Your task to perform on an android device: check out phone information Image 0: 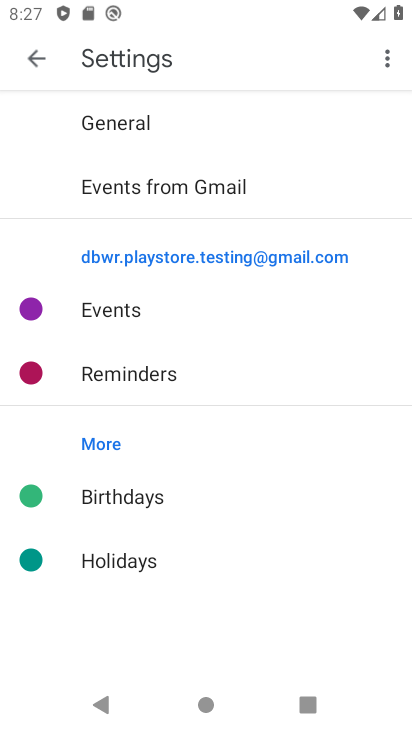
Step 0: click (0, 308)
Your task to perform on an android device: check out phone information Image 1: 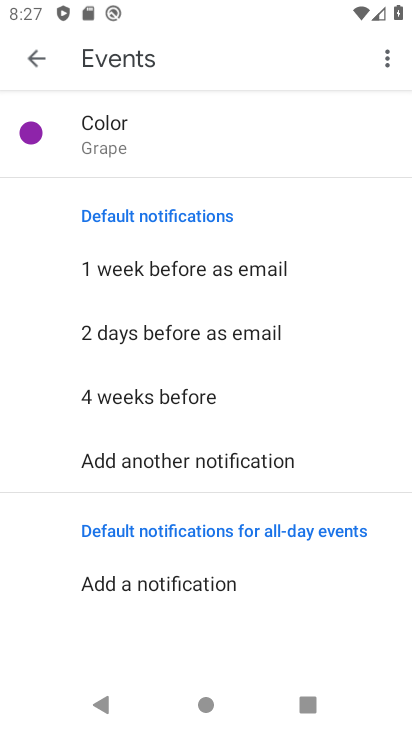
Step 1: press home button
Your task to perform on an android device: check out phone information Image 2: 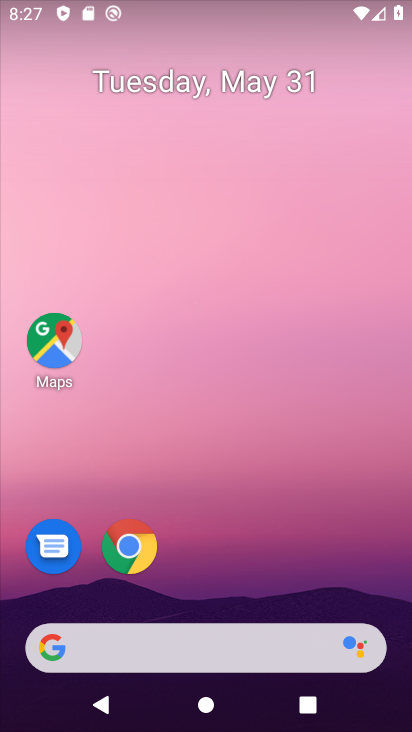
Step 2: drag from (392, 700) to (355, 148)
Your task to perform on an android device: check out phone information Image 3: 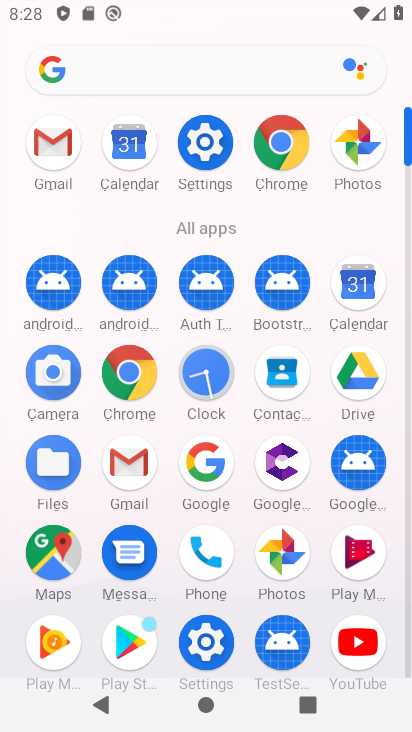
Step 3: click (201, 646)
Your task to perform on an android device: check out phone information Image 4: 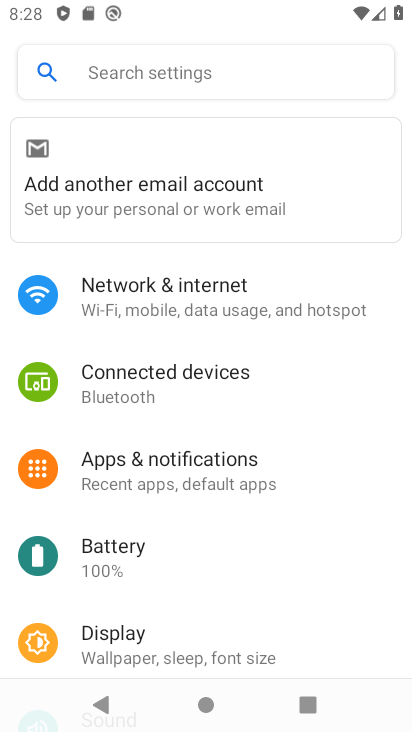
Step 4: drag from (346, 646) to (341, 160)
Your task to perform on an android device: check out phone information Image 5: 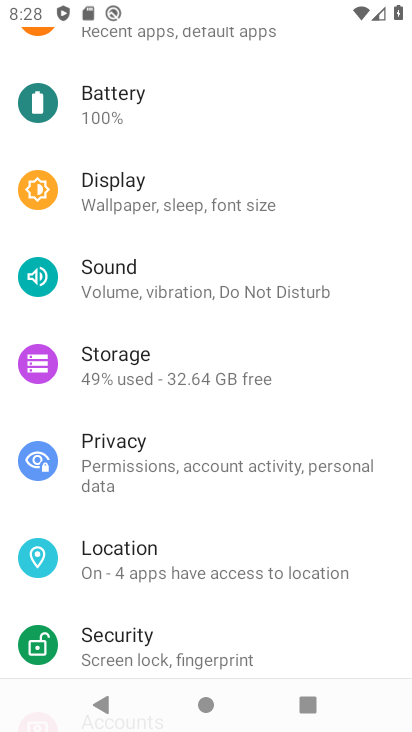
Step 5: drag from (333, 602) to (330, 166)
Your task to perform on an android device: check out phone information Image 6: 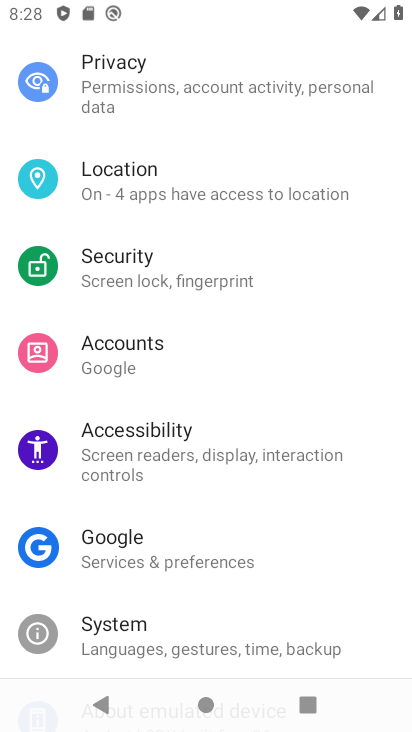
Step 6: drag from (352, 646) to (307, 283)
Your task to perform on an android device: check out phone information Image 7: 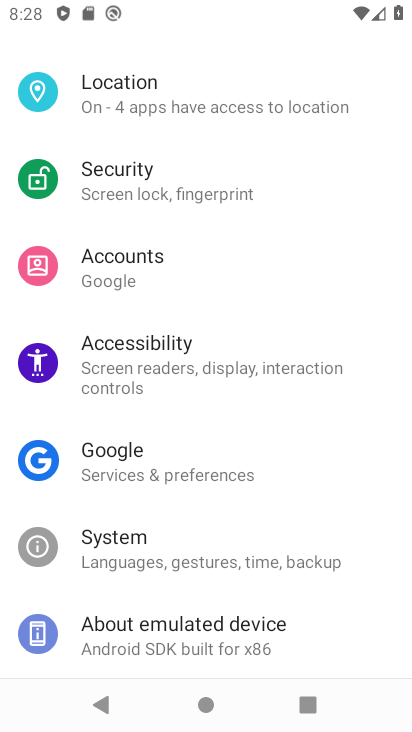
Step 7: click (161, 618)
Your task to perform on an android device: check out phone information Image 8: 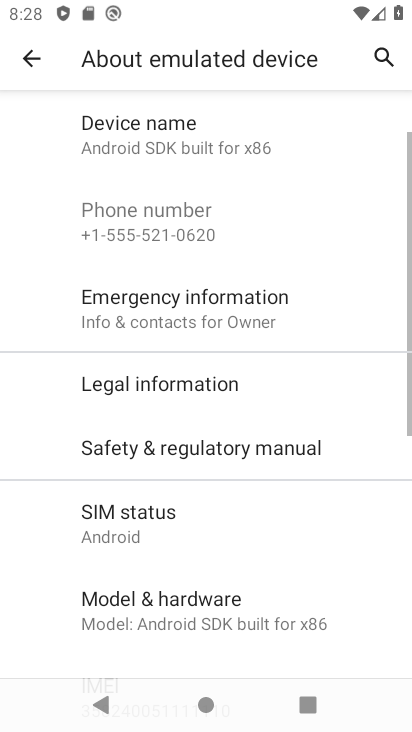
Step 8: task complete